Your task to perform on an android device: toggle wifi Image 0: 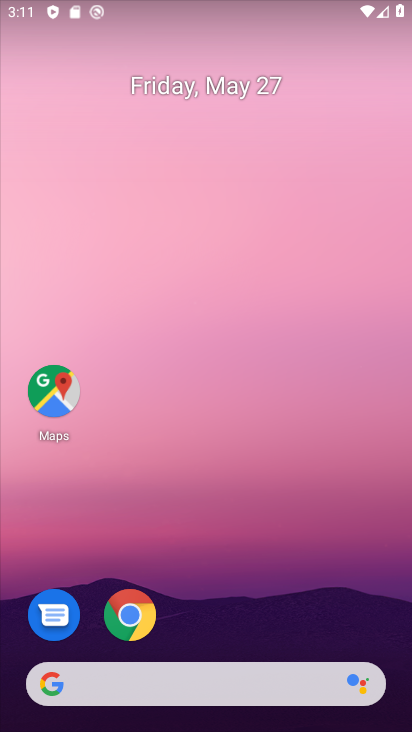
Step 0: drag from (79, 10) to (404, 425)
Your task to perform on an android device: toggle wifi Image 1: 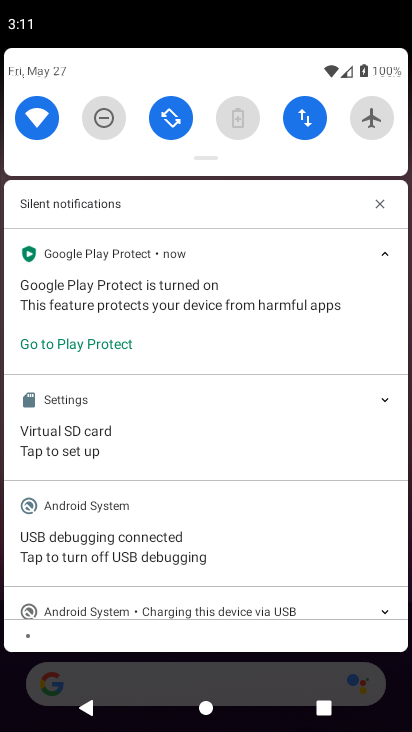
Step 1: click (28, 111)
Your task to perform on an android device: toggle wifi Image 2: 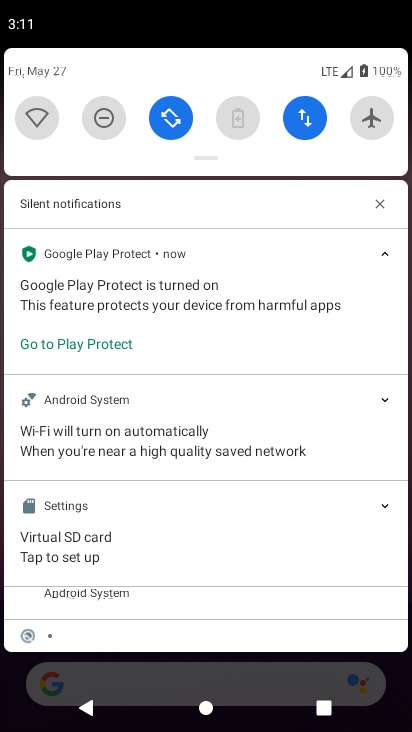
Step 2: task complete